Your task to perform on an android device: Check the news Image 0: 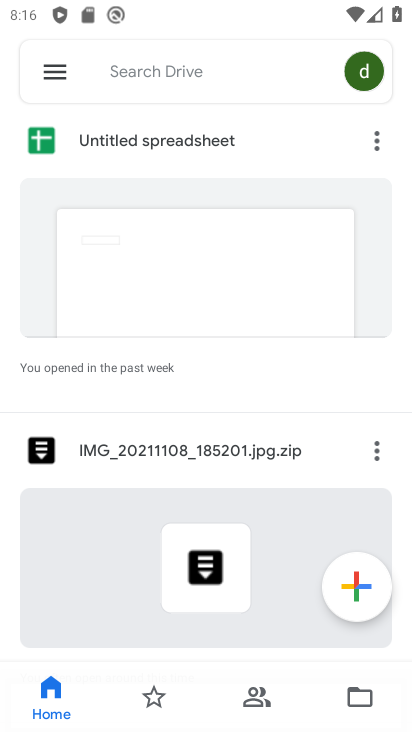
Step 0: press home button
Your task to perform on an android device: Check the news Image 1: 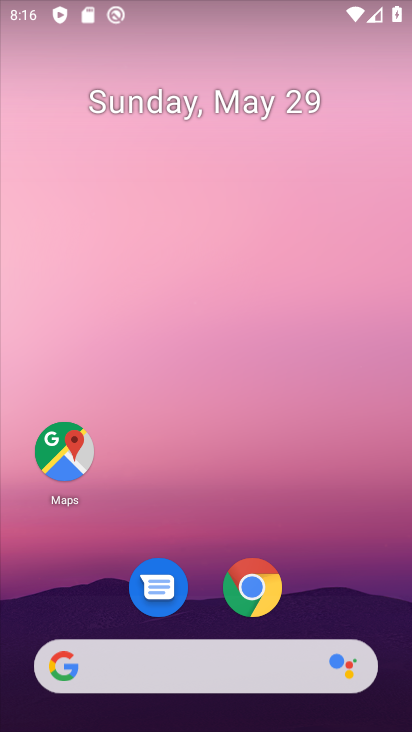
Step 1: click (204, 668)
Your task to perform on an android device: Check the news Image 2: 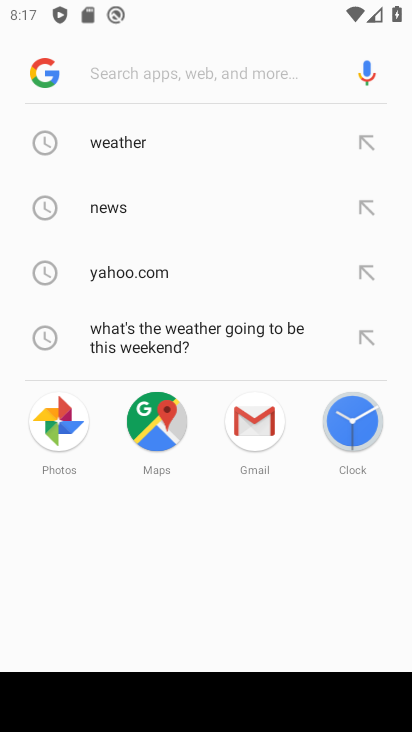
Step 2: click (123, 219)
Your task to perform on an android device: Check the news Image 3: 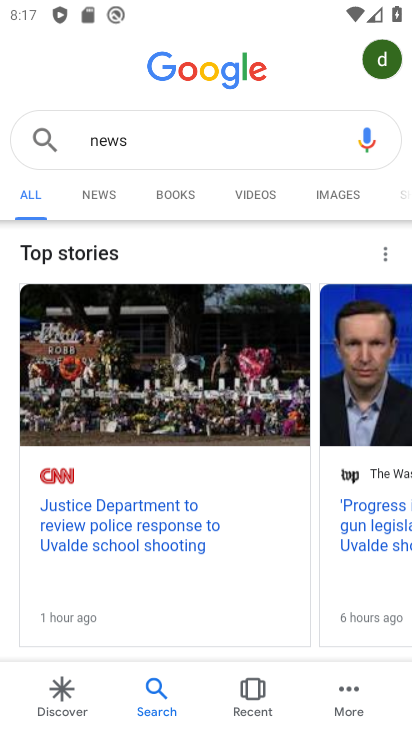
Step 3: task complete